Your task to perform on an android device: Open the stopwatch Image 0: 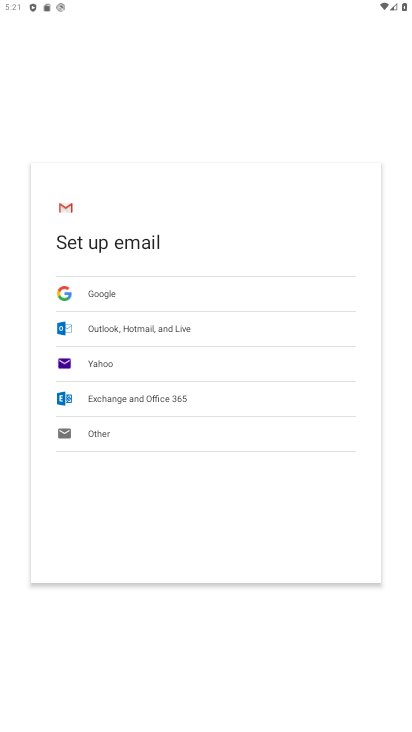
Step 0: press home button
Your task to perform on an android device: Open the stopwatch Image 1: 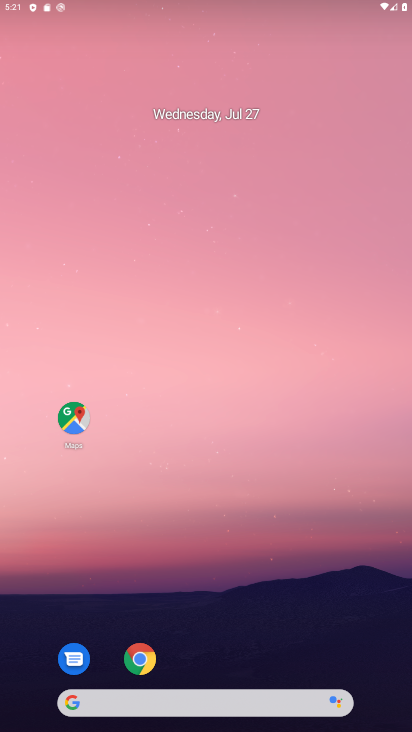
Step 1: drag from (276, 618) to (280, 43)
Your task to perform on an android device: Open the stopwatch Image 2: 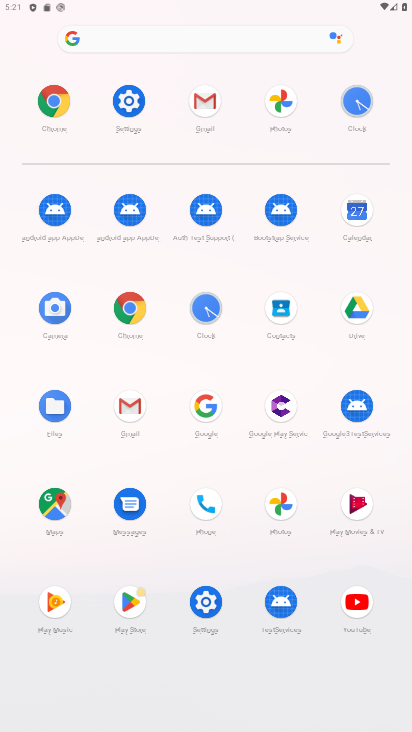
Step 2: click (192, 311)
Your task to perform on an android device: Open the stopwatch Image 3: 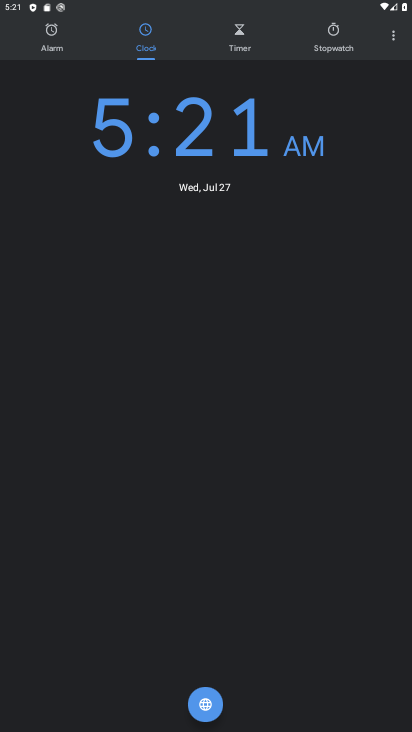
Step 3: click (326, 38)
Your task to perform on an android device: Open the stopwatch Image 4: 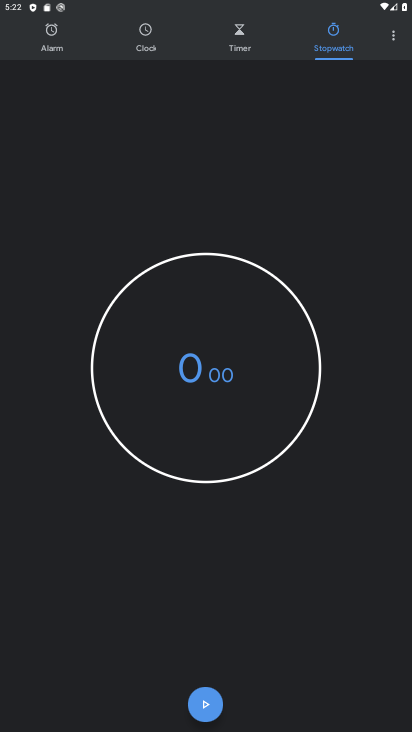
Step 4: task complete